Your task to perform on an android device: Go to eBay Image 0: 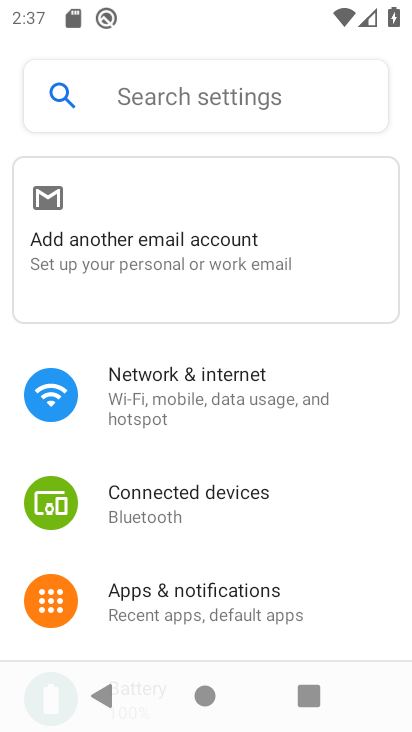
Step 0: press home button
Your task to perform on an android device: Go to eBay Image 1: 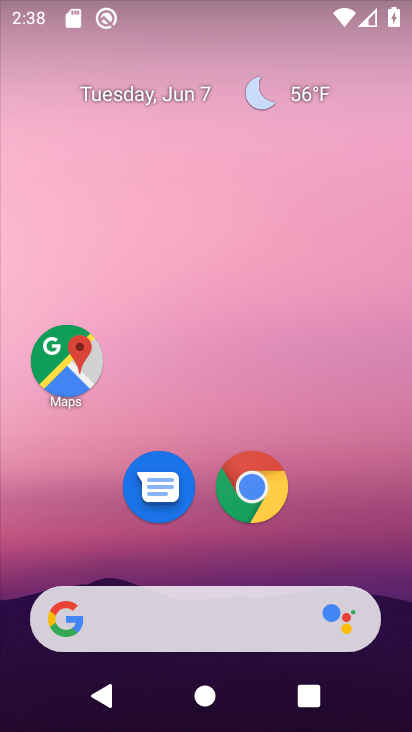
Step 1: click (262, 500)
Your task to perform on an android device: Go to eBay Image 2: 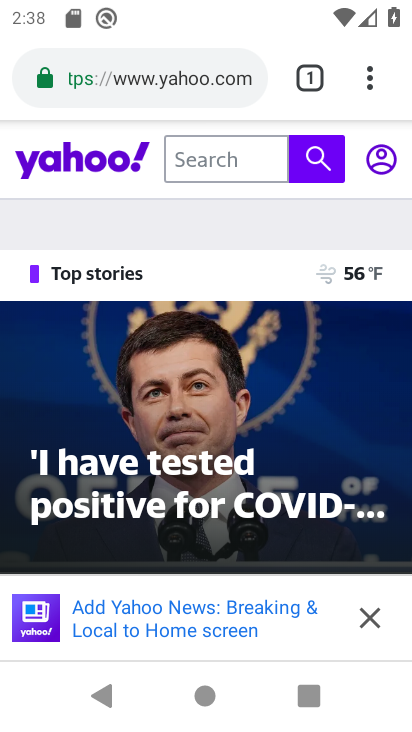
Step 2: click (311, 93)
Your task to perform on an android device: Go to eBay Image 3: 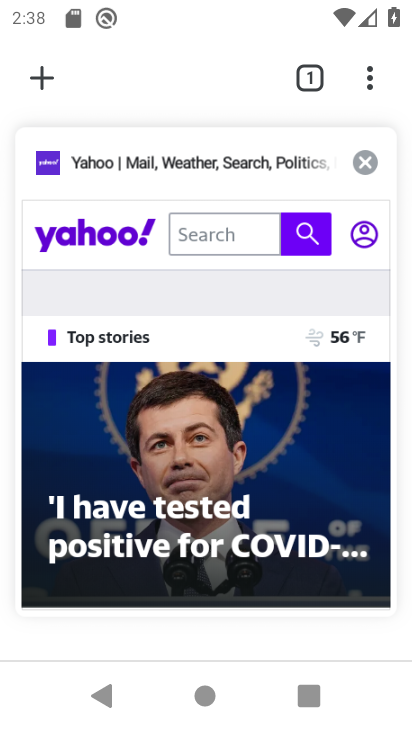
Step 3: click (49, 75)
Your task to perform on an android device: Go to eBay Image 4: 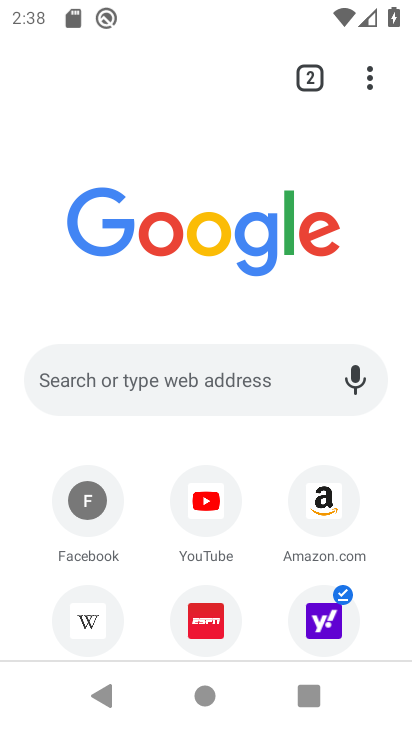
Step 4: drag from (407, 588) to (384, 335)
Your task to perform on an android device: Go to eBay Image 5: 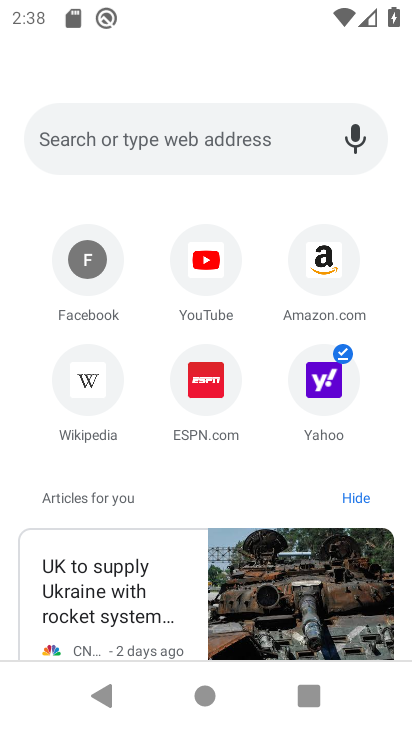
Step 5: click (234, 154)
Your task to perform on an android device: Go to eBay Image 6: 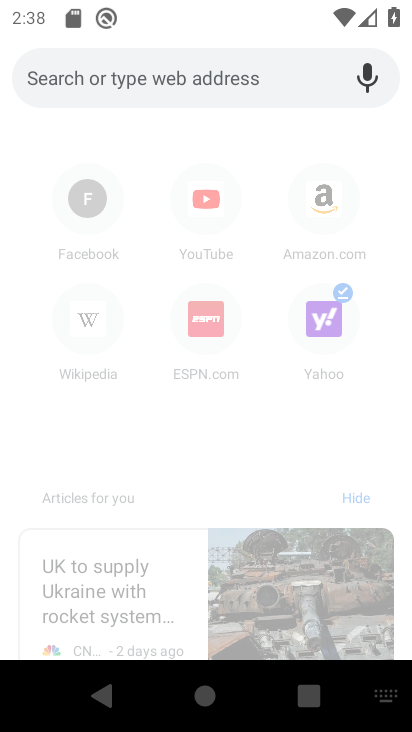
Step 6: type "eBay"
Your task to perform on an android device: Go to eBay Image 7: 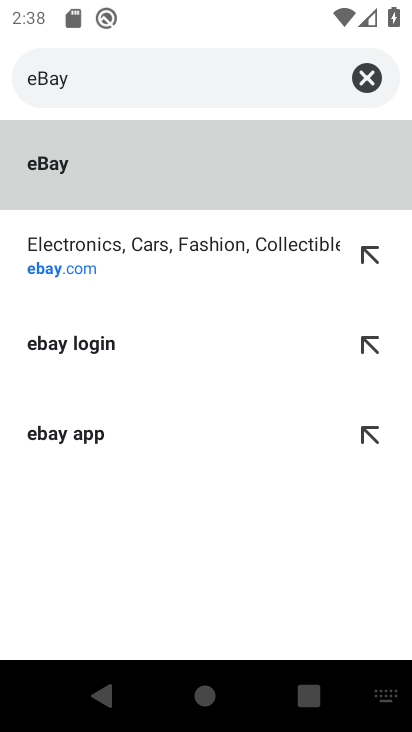
Step 7: click (194, 251)
Your task to perform on an android device: Go to eBay Image 8: 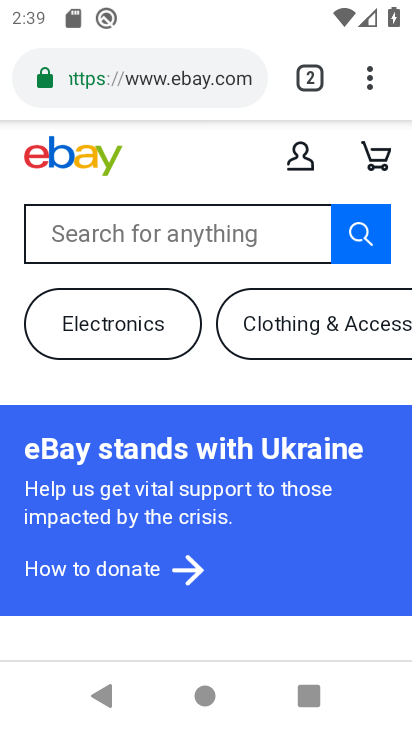
Step 8: task complete